Your task to perform on an android device: turn notification dots on Image 0: 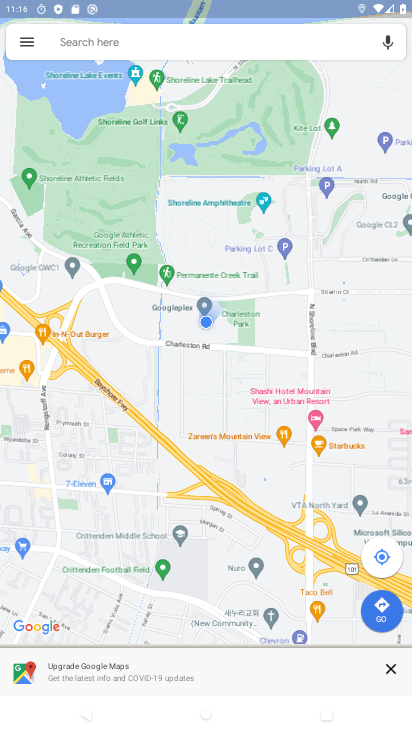
Step 0: press home button
Your task to perform on an android device: turn notification dots on Image 1: 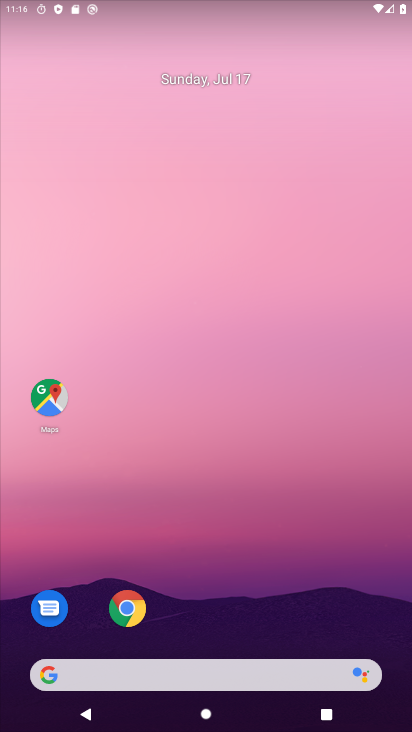
Step 1: drag from (313, 595) to (259, 157)
Your task to perform on an android device: turn notification dots on Image 2: 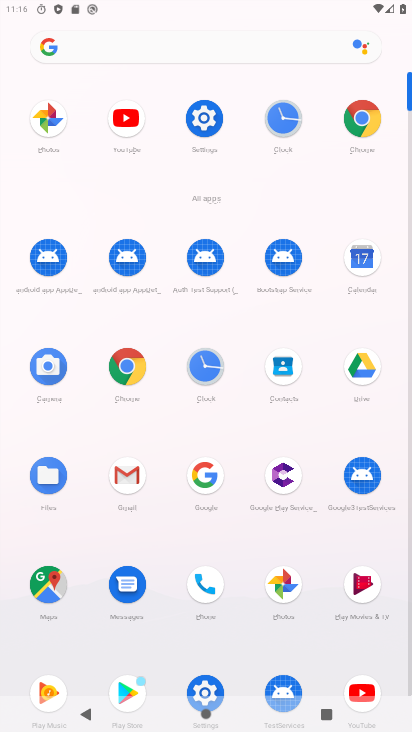
Step 2: click (199, 115)
Your task to perform on an android device: turn notification dots on Image 3: 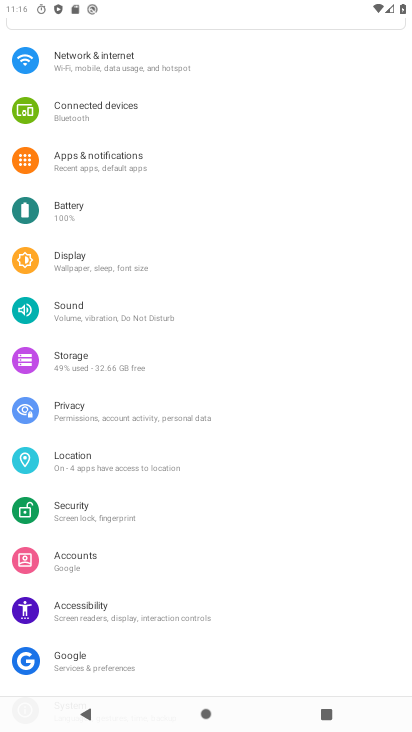
Step 3: click (83, 178)
Your task to perform on an android device: turn notification dots on Image 4: 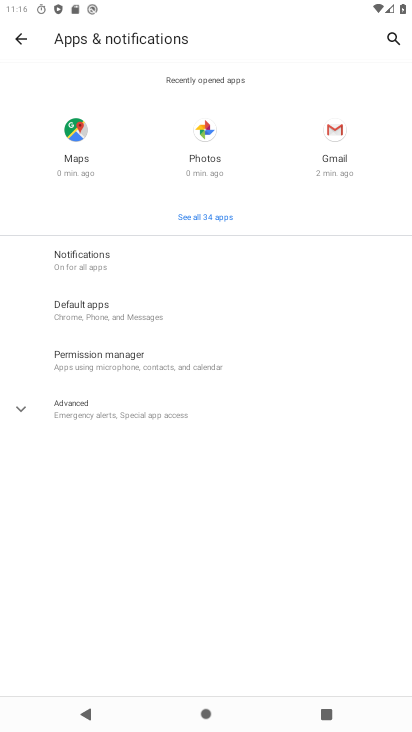
Step 4: click (106, 254)
Your task to perform on an android device: turn notification dots on Image 5: 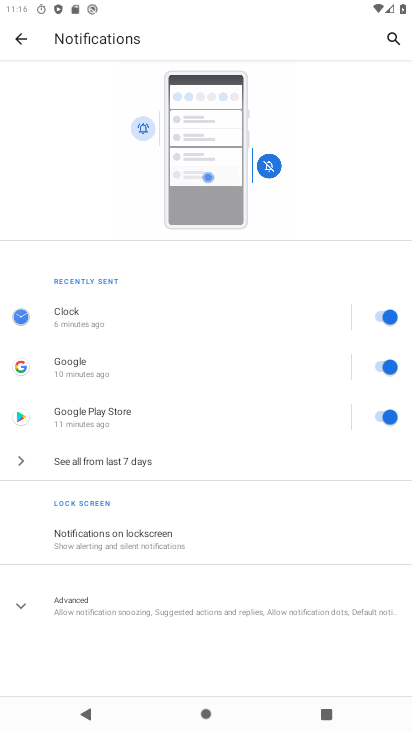
Step 5: click (229, 597)
Your task to perform on an android device: turn notification dots on Image 6: 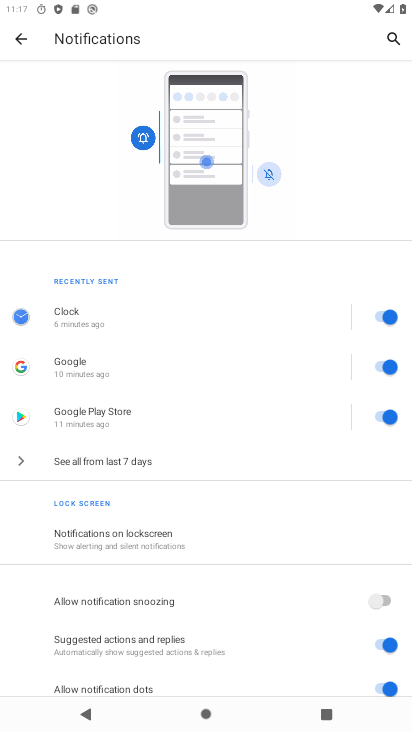
Step 6: task complete